Your task to perform on an android device: Go to location settings Image 0: 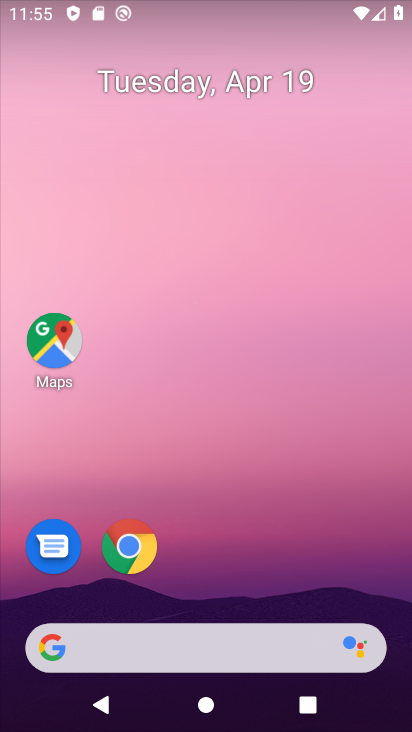
Step 0: drag from (259, 706) to (272, 36)
Your task to perform on an android device: Go to location settings Image 1: 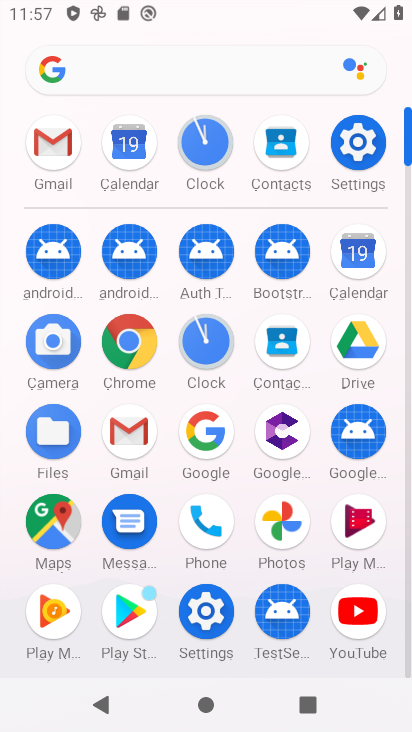
Step 1: click (356, 145)
Your task to perform on an android device: Go to location settings Image 2: 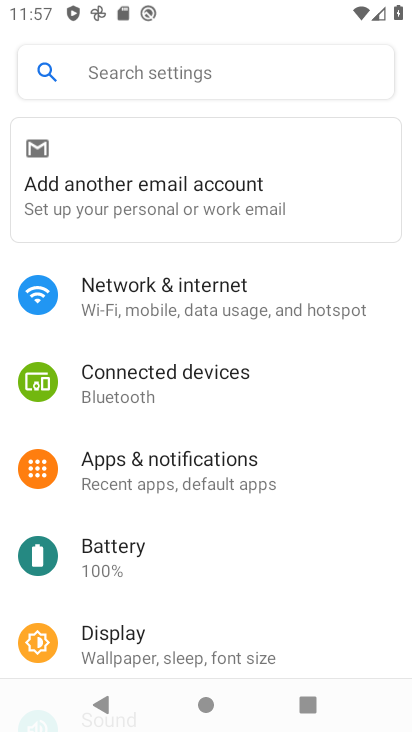
Step 2: drag from (259, 635) to (213, 154)
Your task to perform on an android device: Go to location settings Image 3: 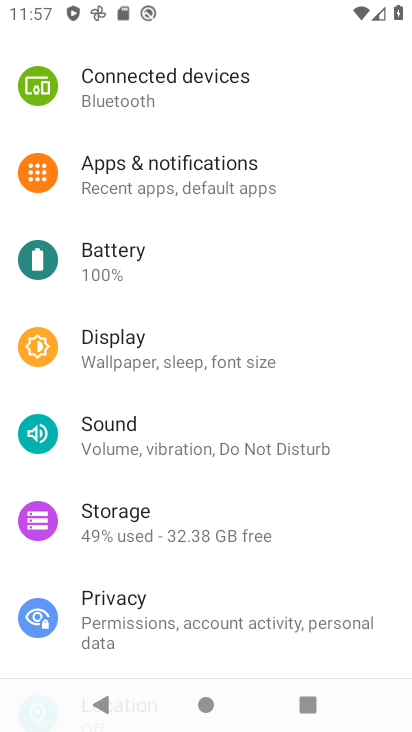
Step 3: drag from (272, 606) to (255, 83)
Your task to perform on an android device: Go to location settings Image 4: 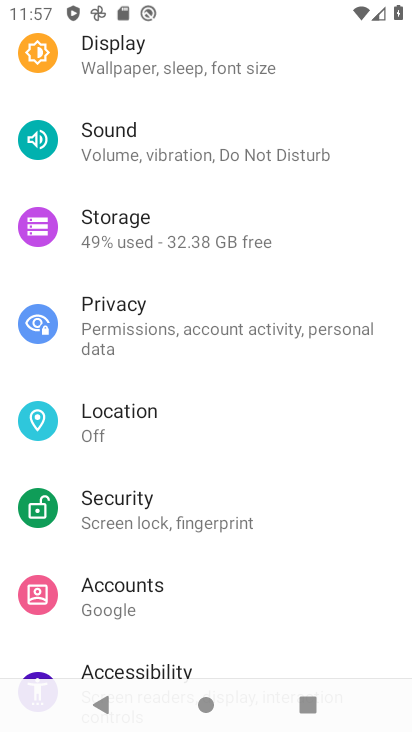
Step 4: click (218, 424)
Your task to perform on an android device: Go to location settings Image 5: 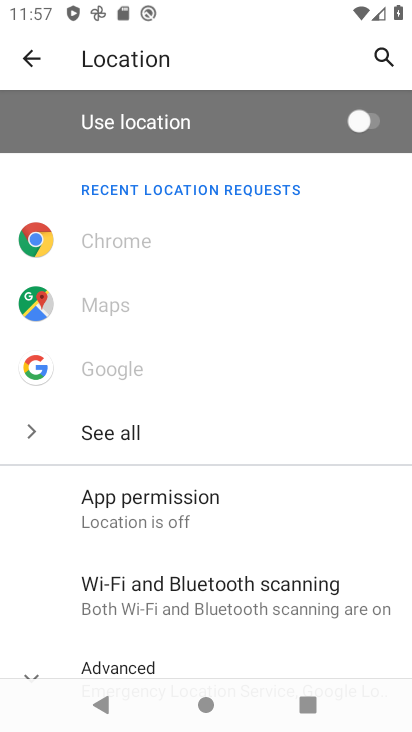
Step 5: task complete